Your task to perform on an android device: open chrome privacy settings Image 0: 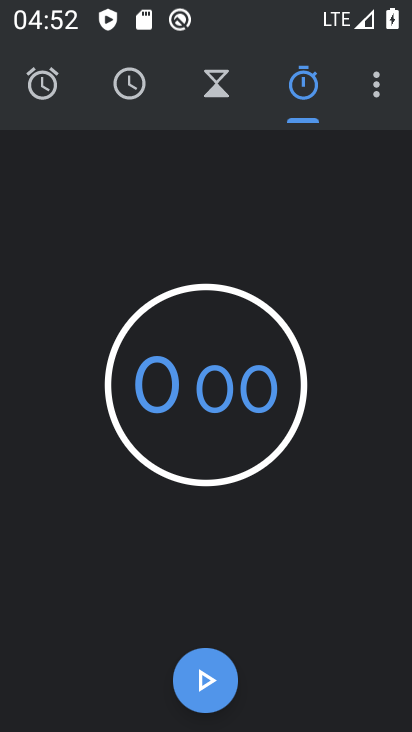
Step 0: press home button
Your task to perform on an android device: open chrome privacy settings Image 1: 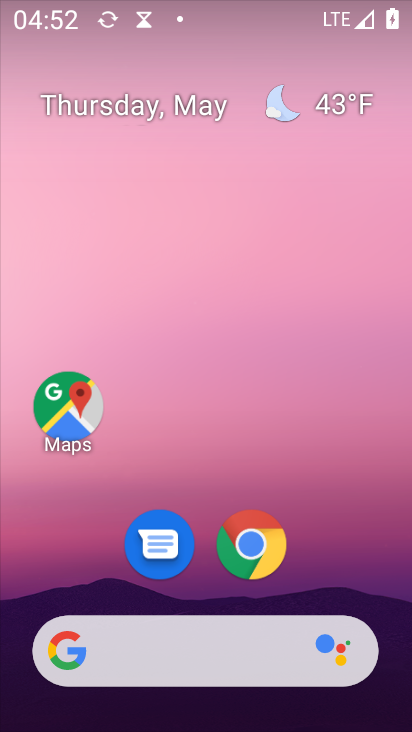
Step 1: click (246, 553)
Your task to perform on an android device: open chrome privacy settings Image 2: 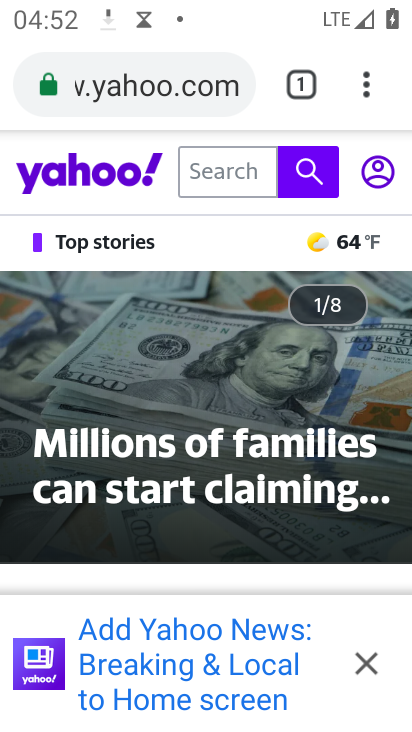
Step 2: click (362, 92)
Your task to perform on an android device: open chrome privacy settings Image 3: 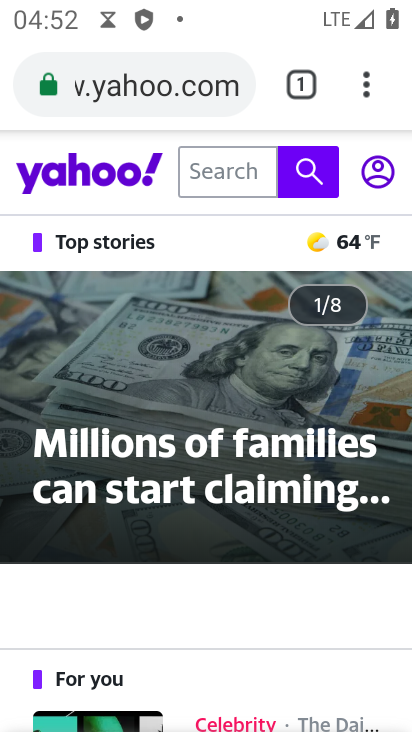
Step 3: click (374, 86)
Your task to perform on an android device: open chrome privacy settings Image 4: 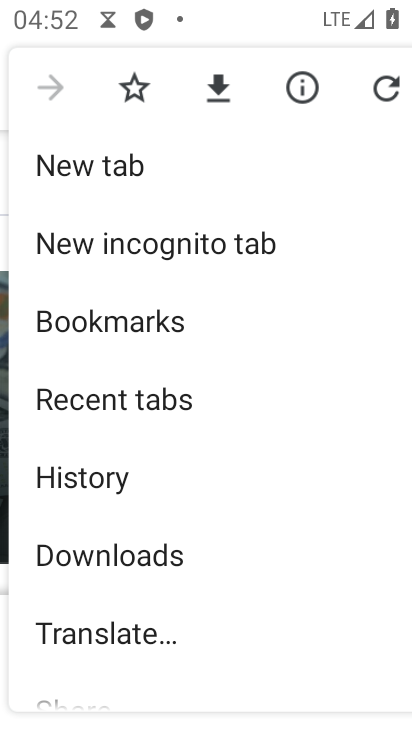
Step 4: drag from (159, 589) to (150, 308)
Your task to perform on an android device: open chrome privacy settings Image 5: 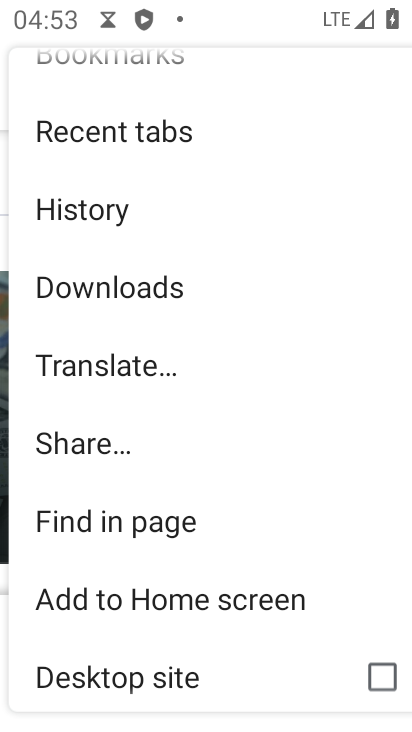
Step 5: drag from (174, 618) to (179, 256)
Your task to perform on an android device: open chrome privacy settings Image 6: 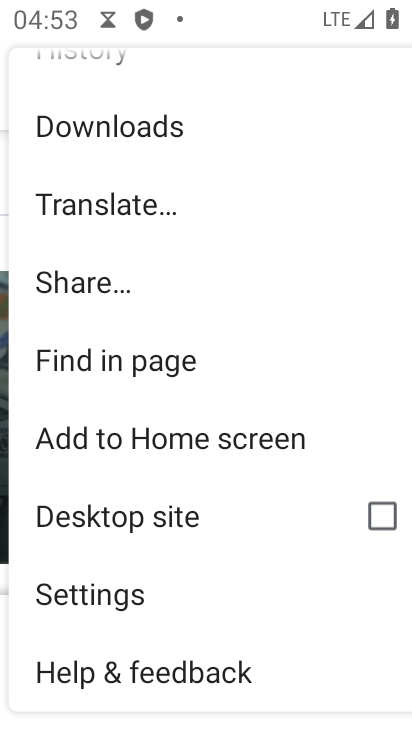
Step 6: click (163, 593)
Your task to perform on an android device: open chrome privacy settings Image 7: 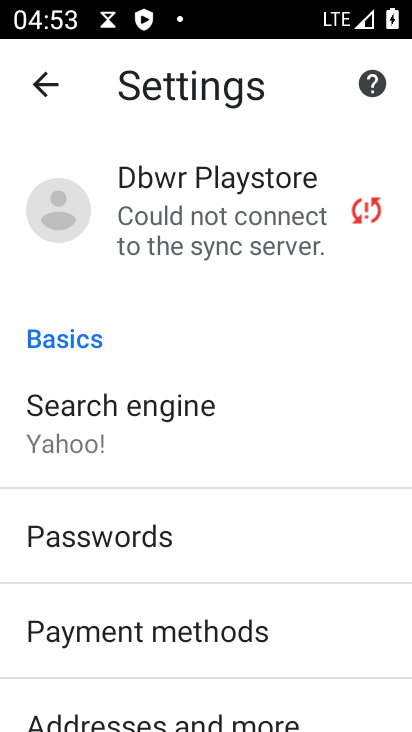
Step 7: drag from (173, 686) to (211, 382)
Your task to perform on an android device: open chrome privacy settings Image 8: 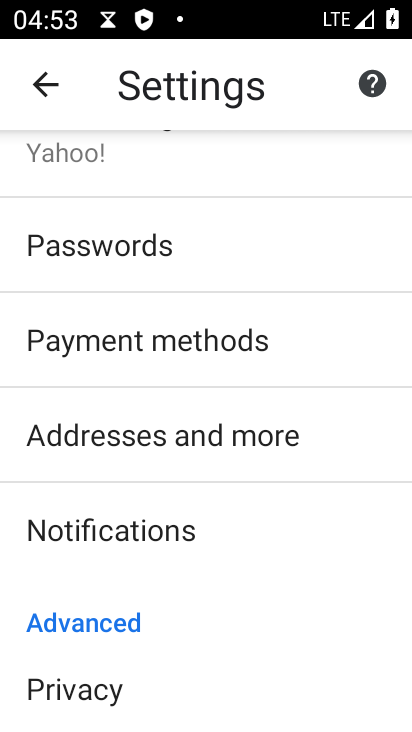
Step 8: click (201, 690)
Your task to perform on an android device: open chrome privacy settings Image 9: 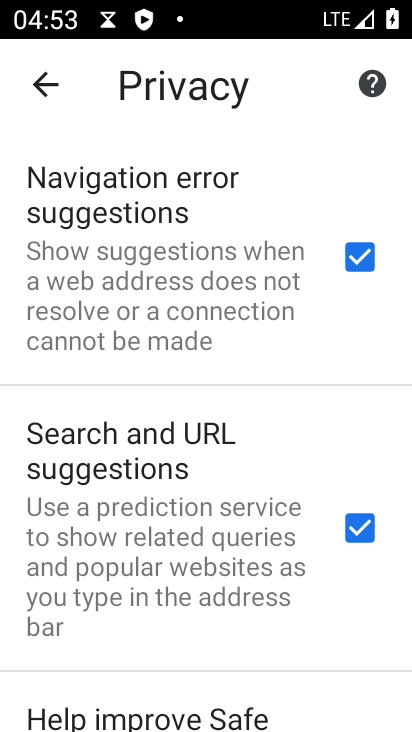
Step 9: task complete